Your task to perform on an android device: toggle airplane mode Image 0: 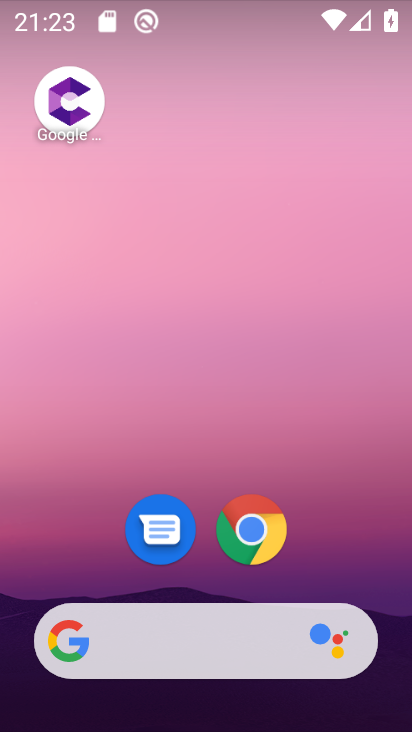
Step 0: drag from (39, 584) to (166, 129)
Your task to perform on an android device: toggle airplane mode Image 1: 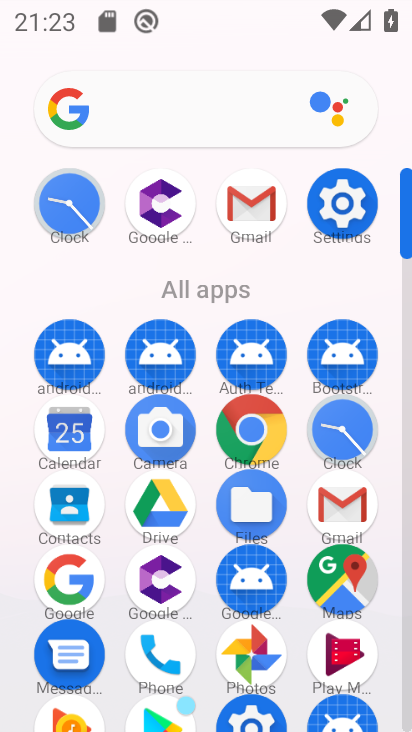
Step 1: drag from (148, 678) to (230, 344)
Your task to perform on an android device: toggle airplane mode Image 2: 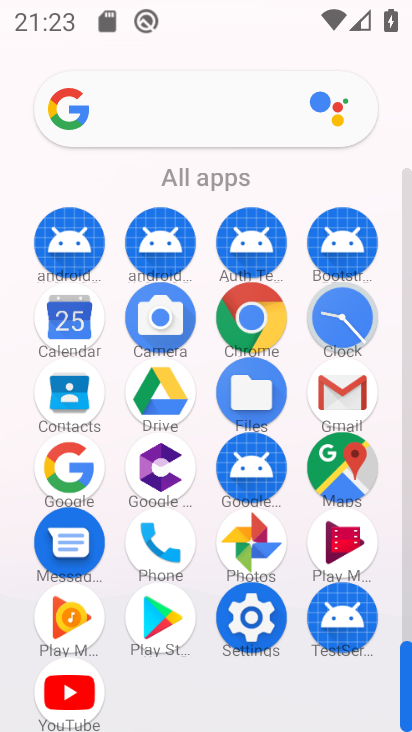
Step 2: click (250, 628)
Your task to perform on an android device: toggle airplane mode Image 3: 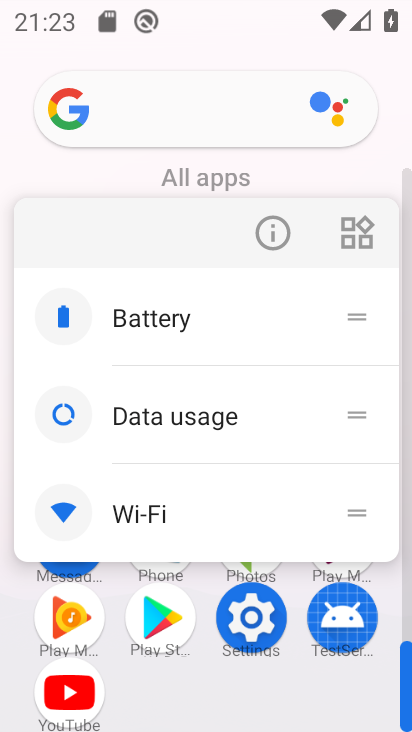
Step 3: click (250, 628)
Your task to perform on an android device: toggle airplane mode Image 4: 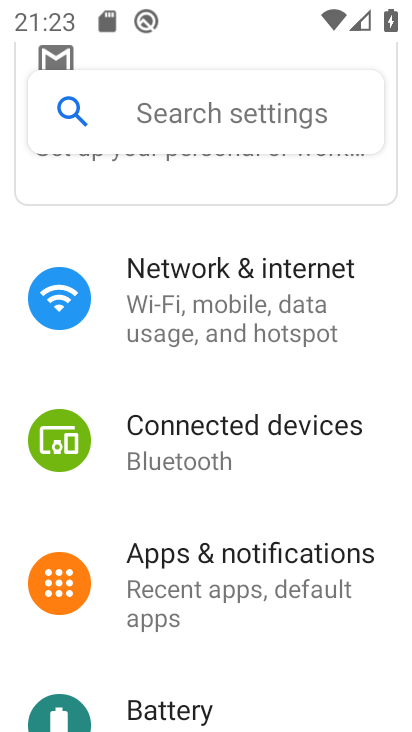
Step 4: click (246, 306)
Your task to perform on an android device: toggle airplane mode Image 5: 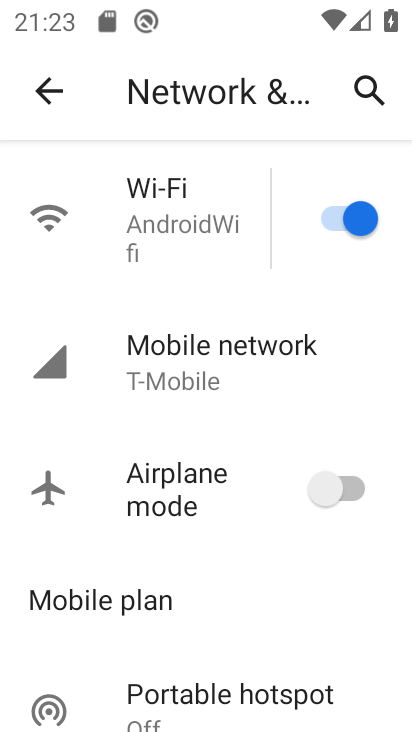
Step 5: click (382, 496)
Your task to perform on an android device: toggle airplane mode Image 6: 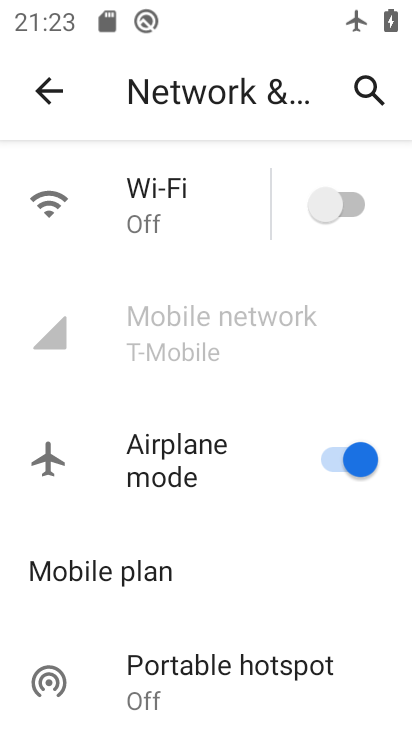
Step 6: task complete